Your task to perform on an android device: Search for vegetarian restaurants on Maps Image 0: 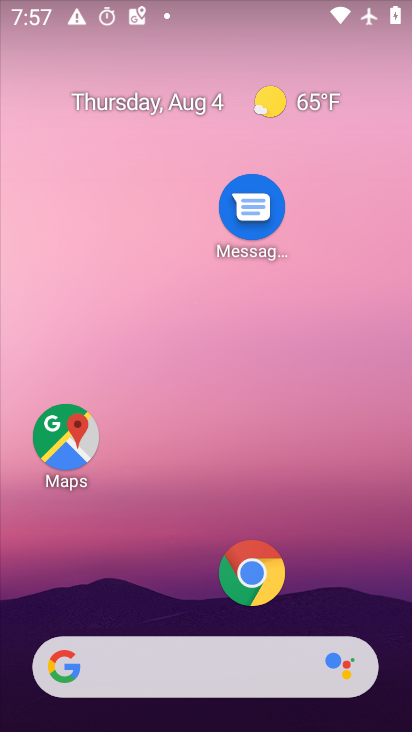
Step 0: click (39, 445)
Your task to perform on an android device: Search for vegetarian restaurants on Maps Image 1: 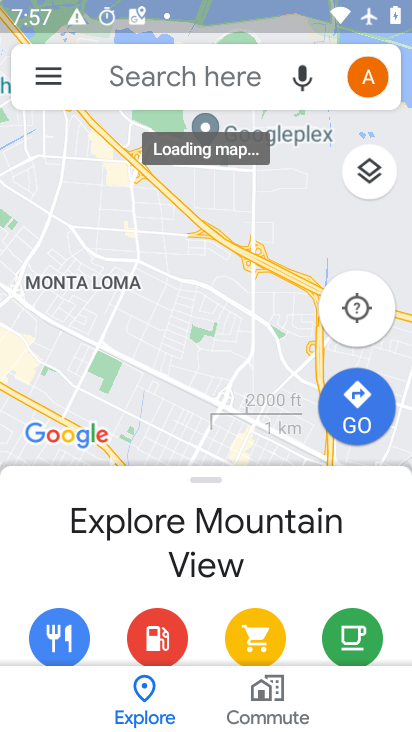
Step 1: click (172, 82)
Your task to perform on an android device: Search for vegetarian restaurants on Maps Image 2: 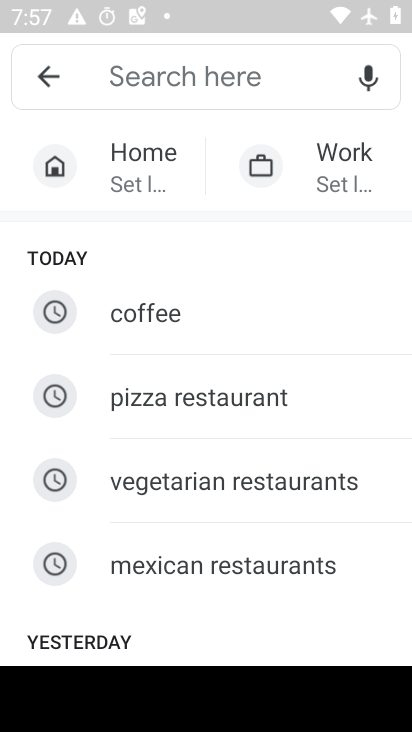
Step 2: click (203, 489)
Your task to perform on an android device: Search for vegetarian restaurants on Maps Image 3: 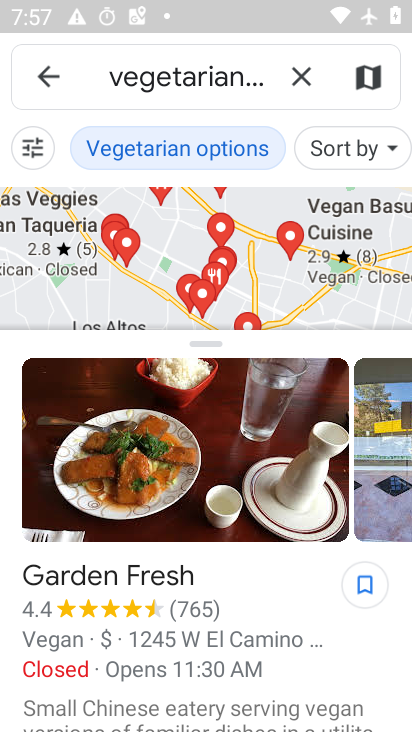
Step 3: task complete